Your task to perform on an android device: install app "DoorDash - Food Delivery" Image 0: 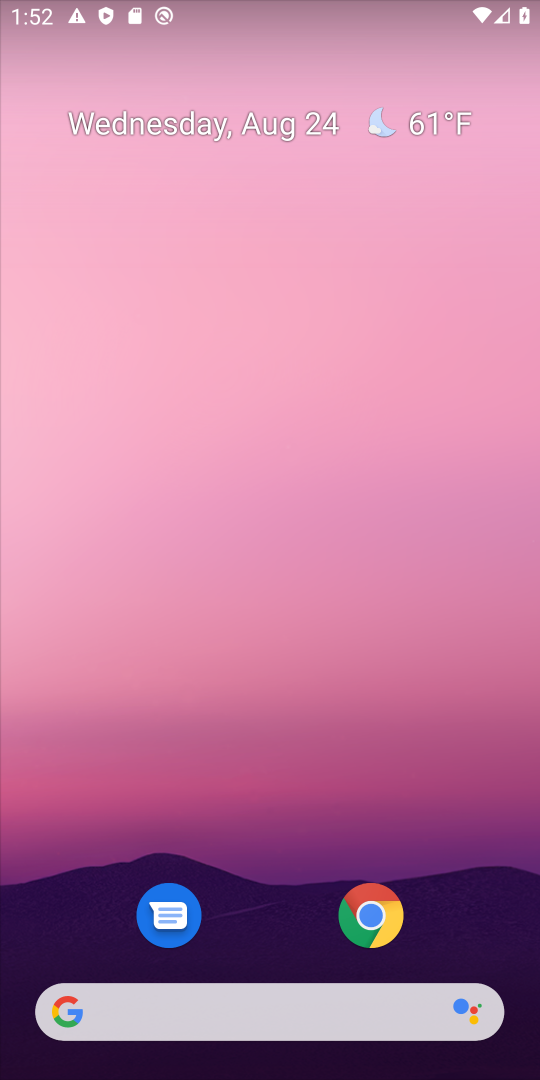
Step 0: drag from (267, 871) to (229, 363)
Your task to perform on an android device: install app "DoorDash - Food Delivery" Image 1: 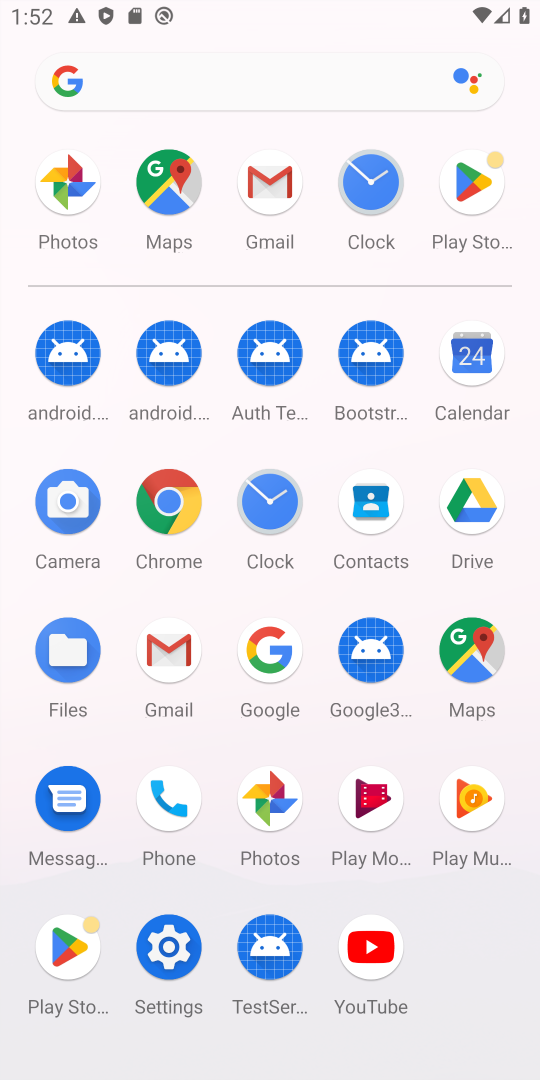
Step 1: click (454, 201)
Your task to perform on an android device: install app "DoorDash - Food Delivery" Image 2: 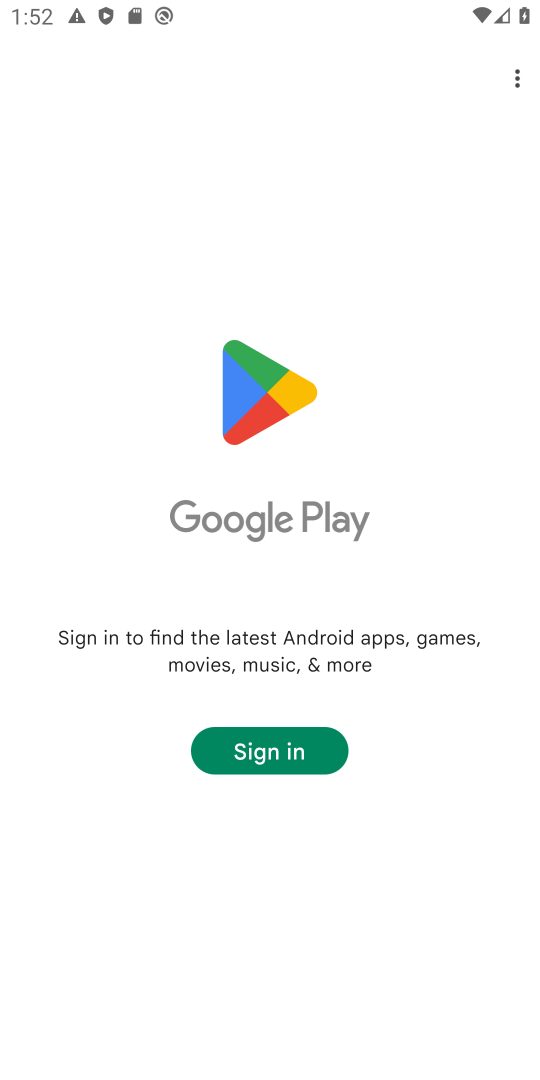
Step 2: task complete